Your task to perform on an android device: Is it going to rain tomorrow? Image 0: 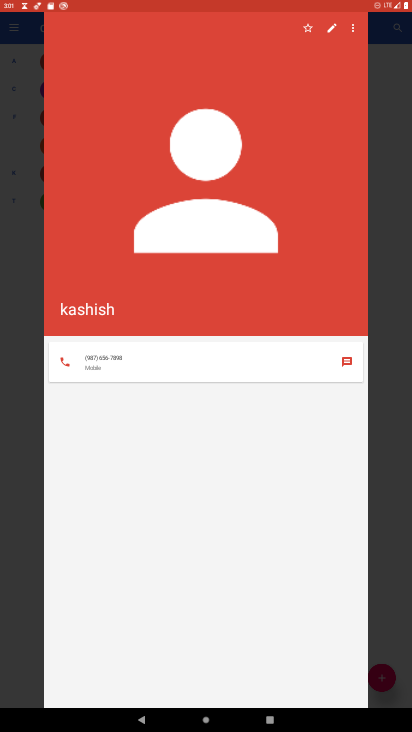
Step 0: press home button
Your task to perform on an android device: Is it going to rain tomorrow? Image 1: 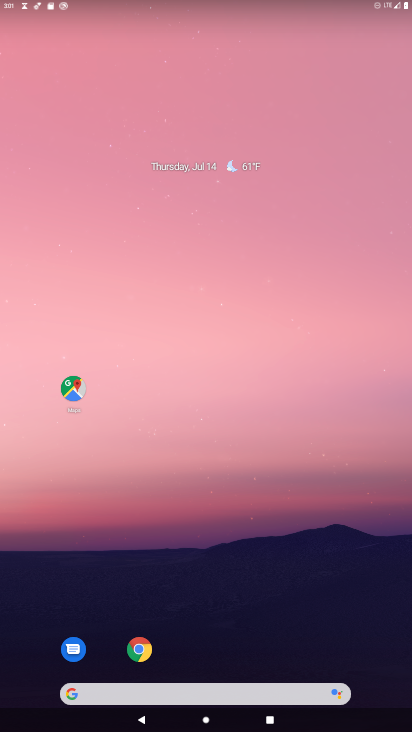
Step 1: drag from (288, 680) to (236, 10)
Your task to perform on an android device: Is it going to rain tomorrow? Image 2: 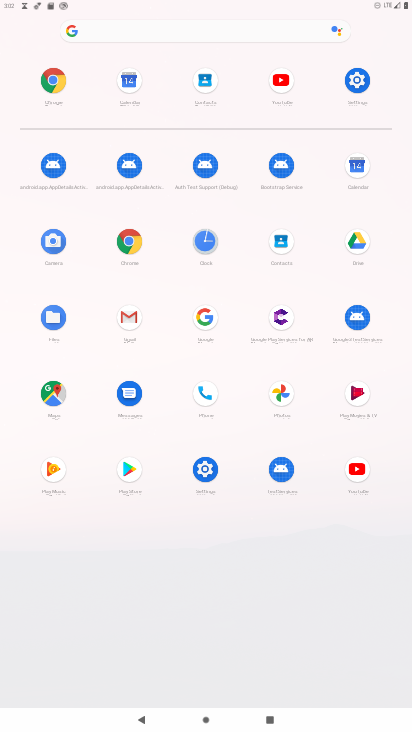
Step 2: click (125, 240)
Your task to perform on an android device: Is it going to rain tomorrow? Image 3: 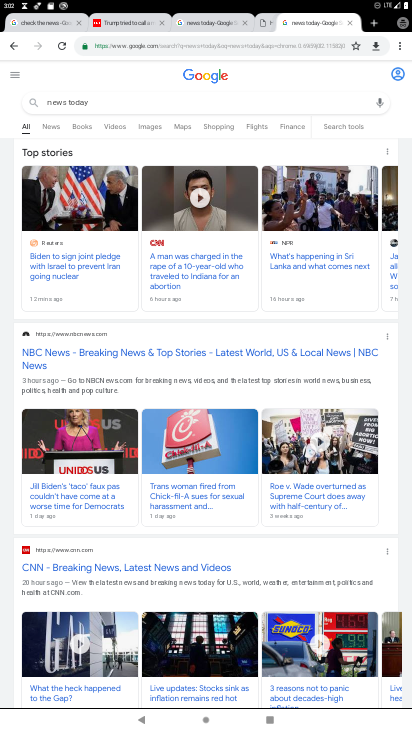
Step 3: click (168, 48)
Your task to perform on an android device: Is it going to rain tomorrow? Image 4: 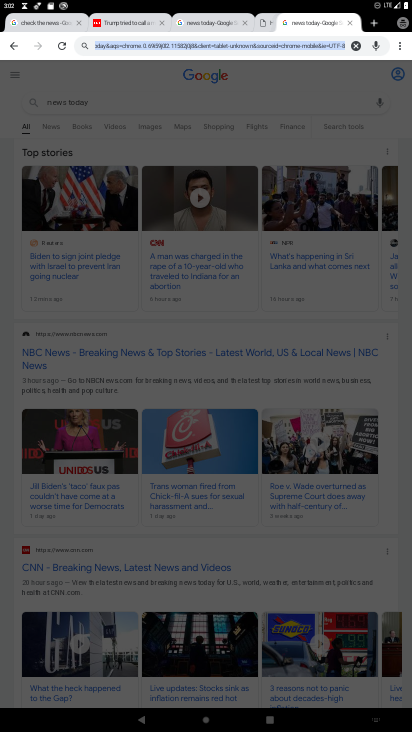
Step 4: type "going to rain tomorrow"
Your task to perform on an android device: Is it going to rain tomorrow? Image 5: 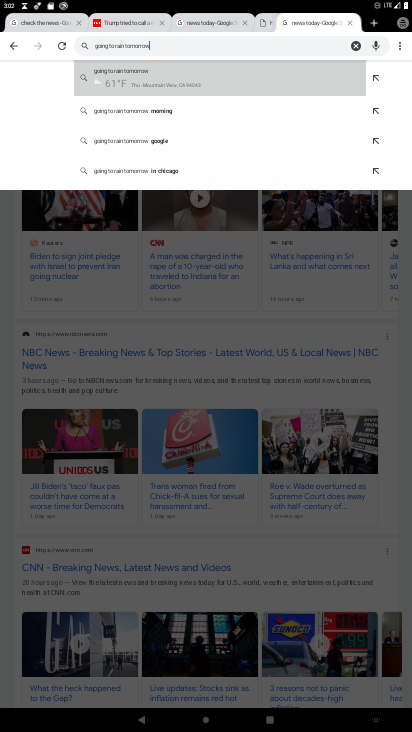
Step 5: click (199, 70)
Your task to perform on an android device: Is it going to rain tomorrow? Image 6: 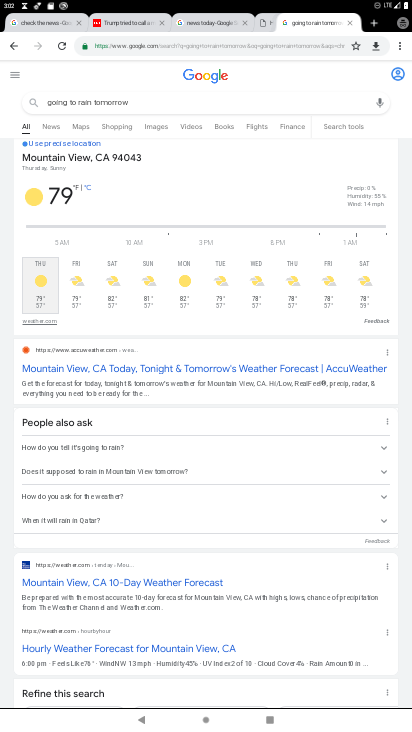
Step 6: task complete